Your task to perform on an android device: Go to CNN.com Image 0: 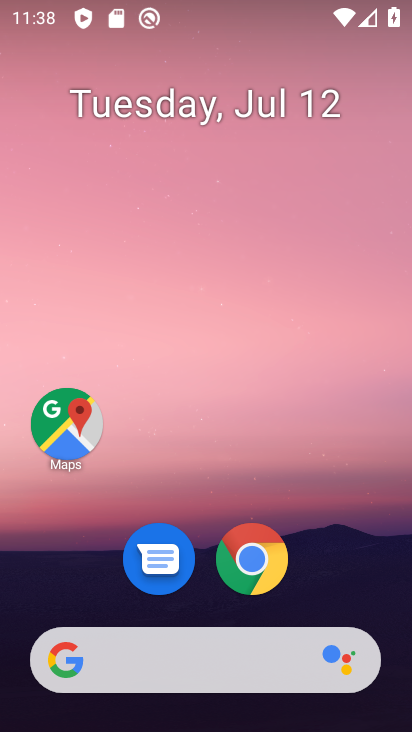
Step 0: drag from (238, 644) to (332, 179)
Your task to perform on an android device: Go to CNN.com Image 1: 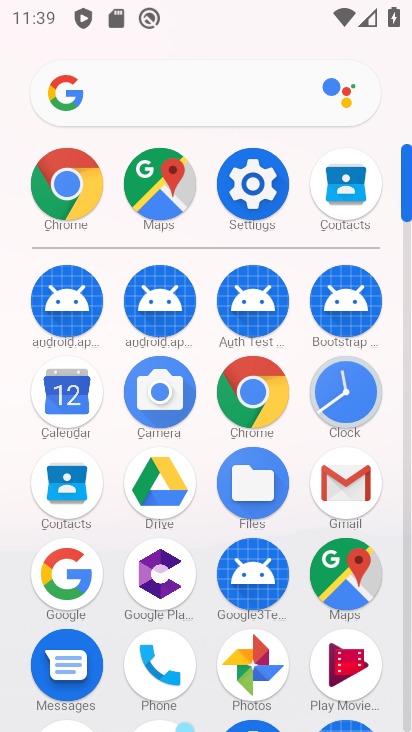
Step 1: click (266, 408)
Your task to perform on an android device: Go to CNN.com Image 2: 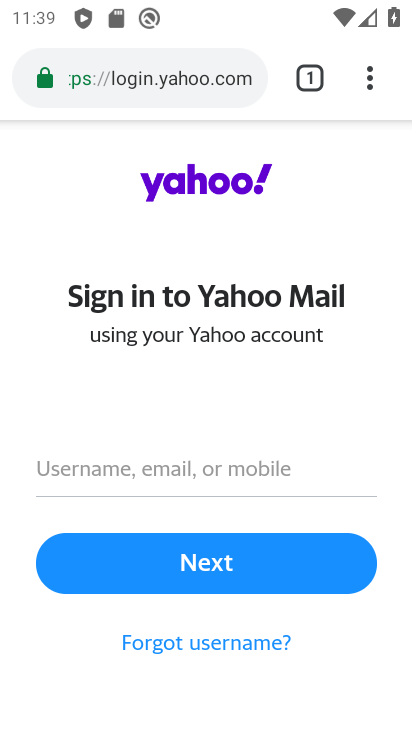
Step 2: click (227, 95)
Your task to perform on an android device: Go to CNN.com Image 3: 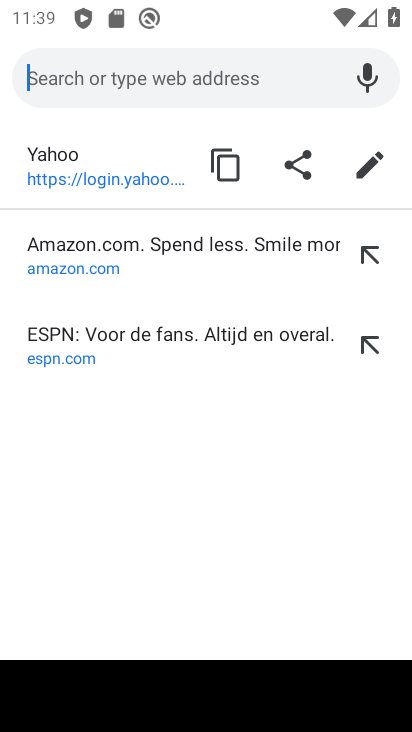
Step 3: type "cnn"
Your task to perform on an android device: Go to CNN.com Image 4: 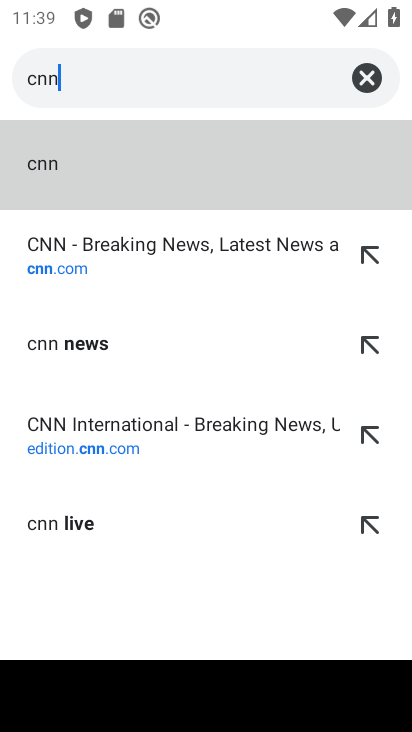
Step 4: click (155, 282)
Your task to perform on an android device: Go to CNN.com Image 5: 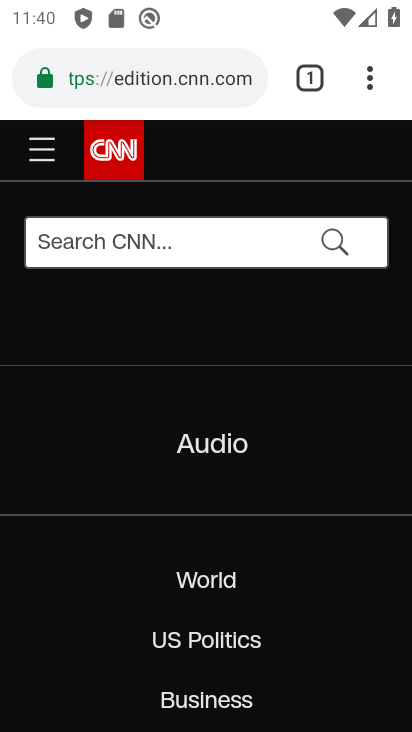
Step 5: task complete